Your task to perform on an android device: Open the web browser Image 0: 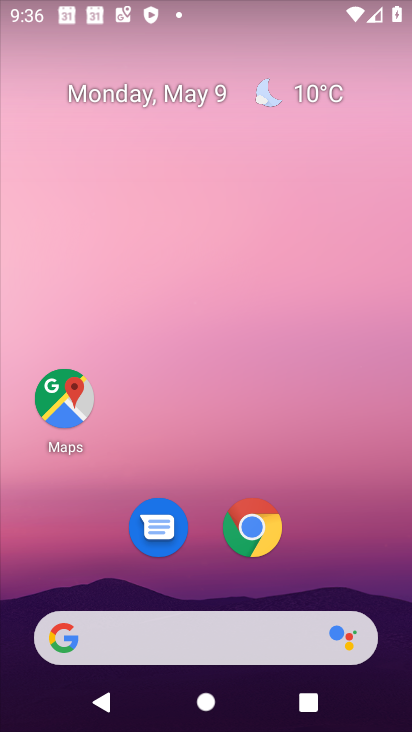
Step 0: drag from (223, 612) to (269, 4)
Your task to perform on an android device: Open the web browser Image 1: 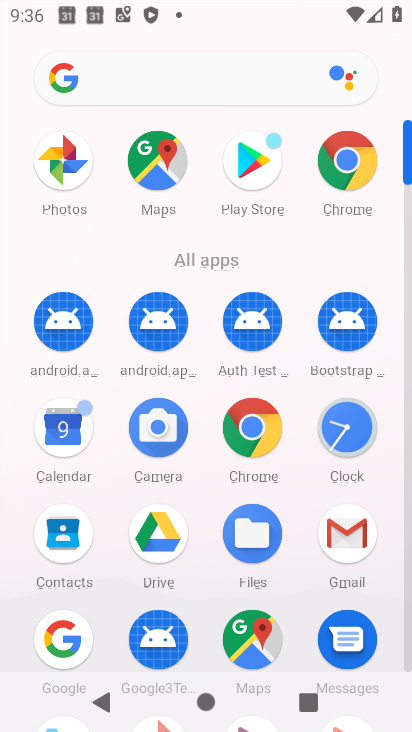
Step 1: click (248, 438)
Your task to perform on an android device: Open the web browser Image 2: 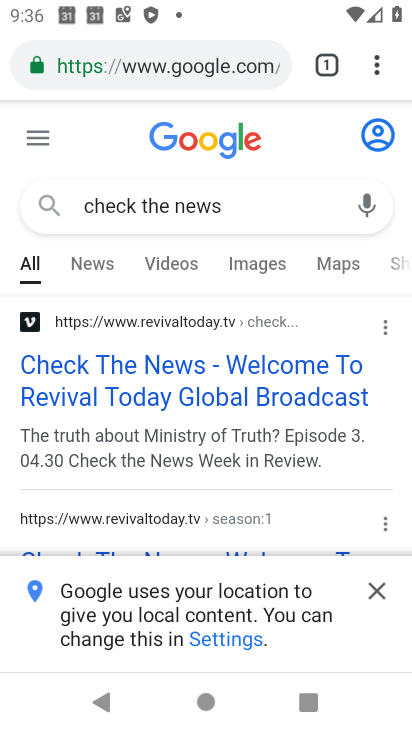
Step 2: task complete